Your task to perform on an android device: Check the weather Image 0: 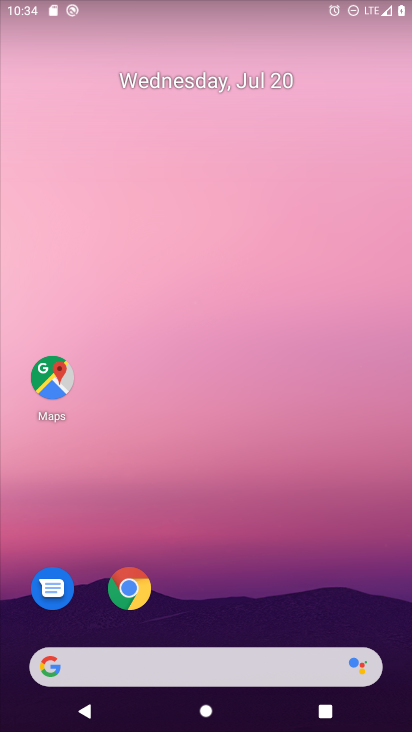
Step 0: click (162, 680)
Your task to perform on an android device: Check the weather Image 1: 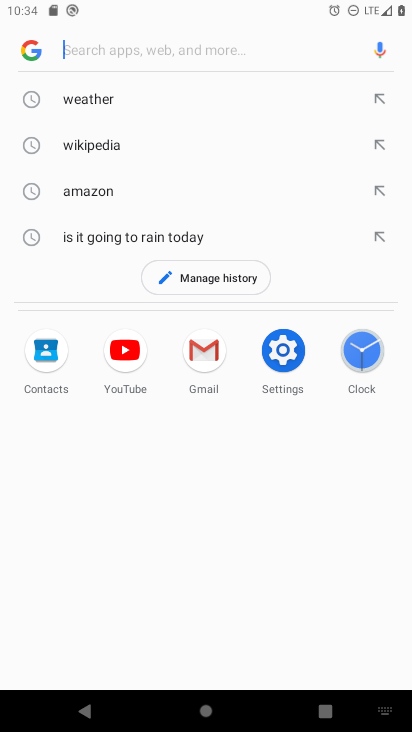
Step 1: click (107, 95)
Your task to perform on an android device: Check the weather Image 2: 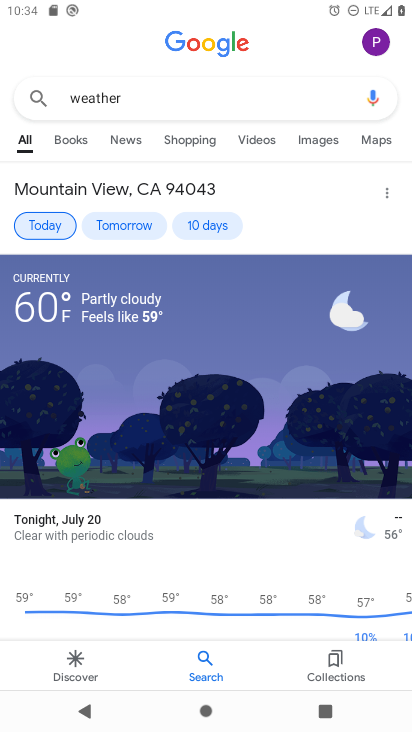
Step 2: task complete